Your task to perform on an android device: What's on my calendar today? Image 0: 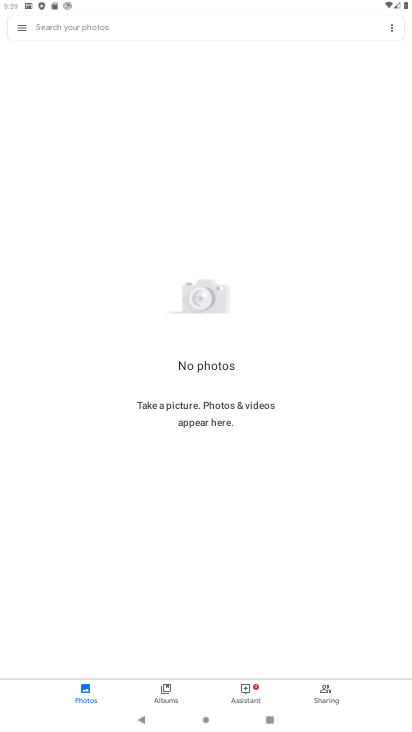
Step 0: press home button
Your task to perform on an android device: What's on my calendar today? Image 1: 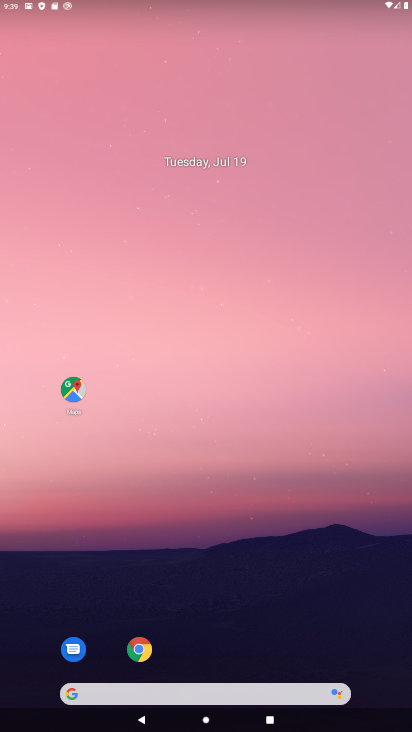
Step 1: drag from (348, 646) to (241, 80)
Your task to perform on an android device: What's on my calendar today? Image 2: 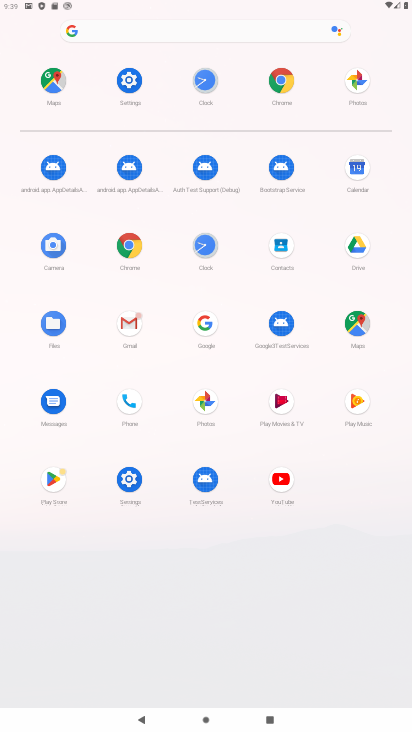
Step 2: click (357, 163)
Your task to perform on an android device: What's on my calendar today? Image 3: 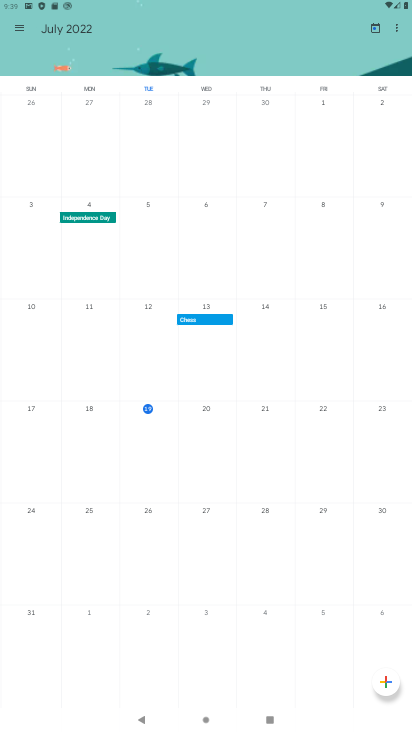
Step 3: task complete